Your task to perform on an android device: Go to wifi settings Image 0: 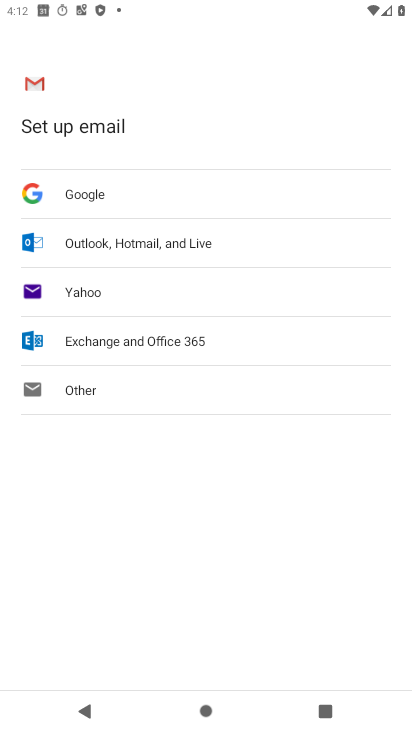
Step 0: press home button
Your task to perform on an android device: Go to wifi settings Image 1: 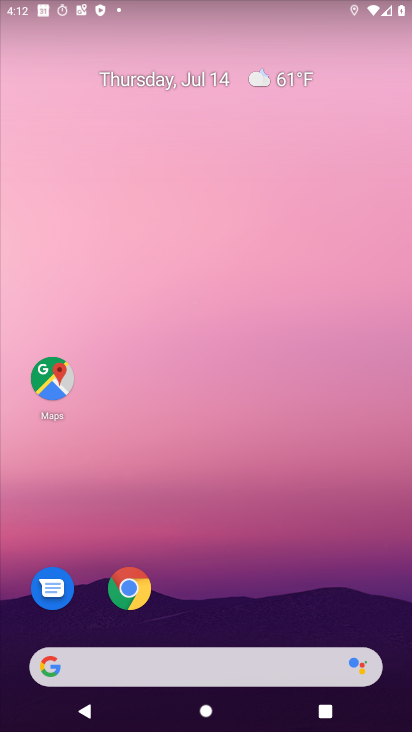
Step 1: drag from (195, 667) to (211, 260)
Your task to perform on an android device: Go to wifi settings Image 2: 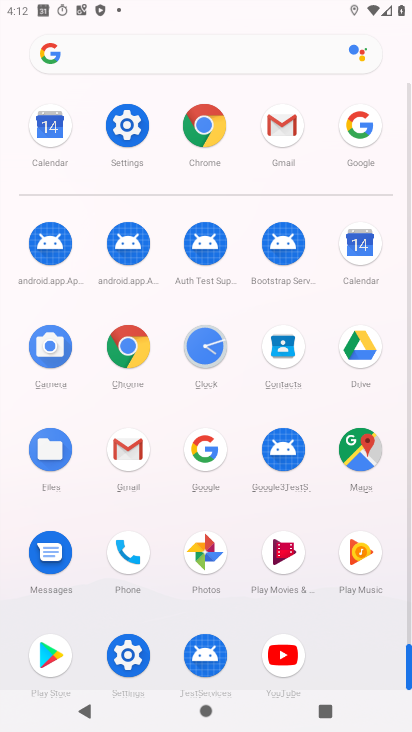
Step 2: click (127, 123)
Your task to perform on an android device: Go to wifi settings Image 3: 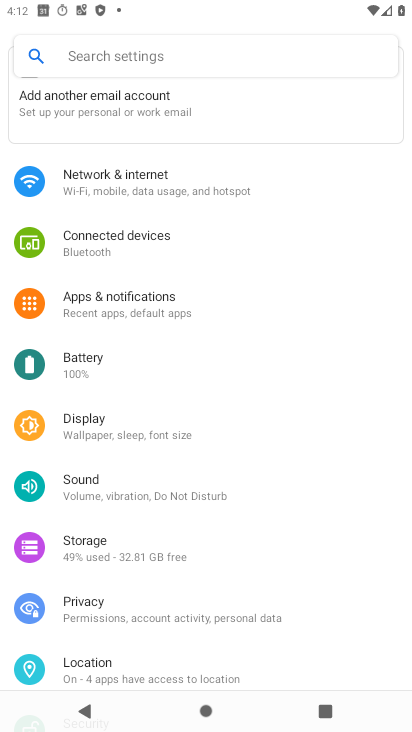
Step 3: click (123, 185)
Your task to perform on an android device: Go to wifi settings Image 4: 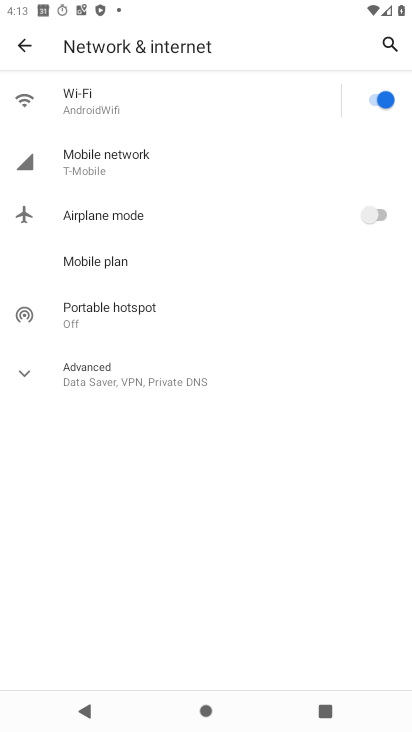
Step 4: click (82, 112)
Your task to perform on an android device: Go to wifi settings Image 5: 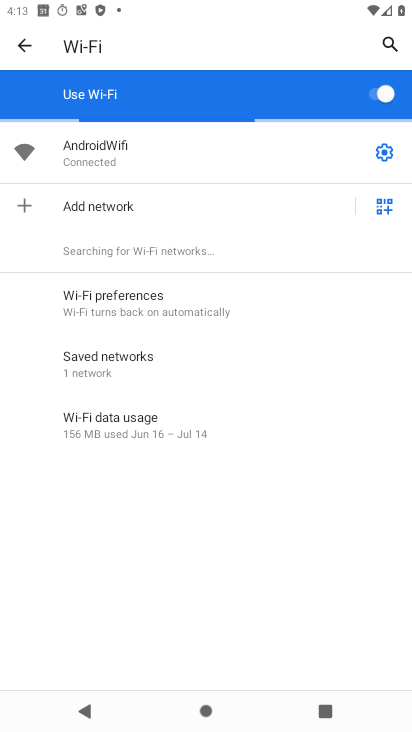
Step 5: click (383, 151)
Your task to perform on an android device: Go to wifi settings Image 6: 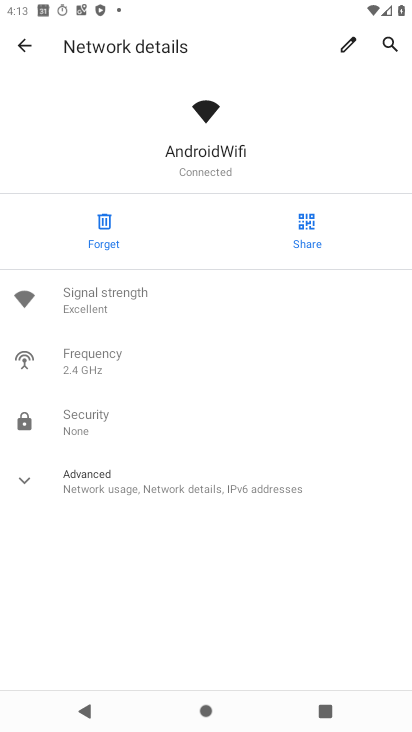
Step 6: task complete